Your task to perform on an android device: Open location settings Image 0: 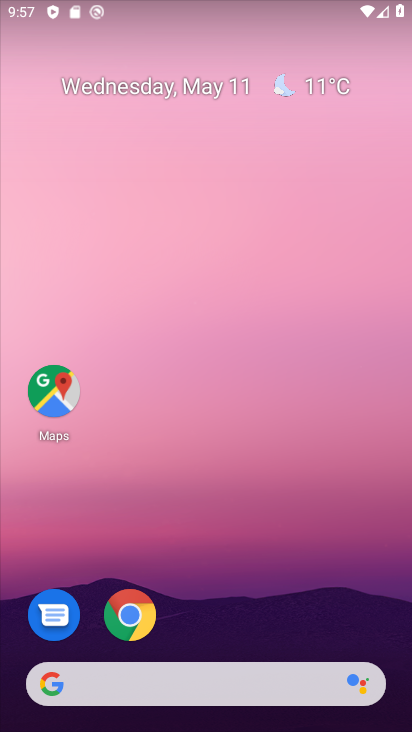
Step 0: drag from (298, 393) to (311, 142)
Your task to perform on an android device: Open location settings Image 1: 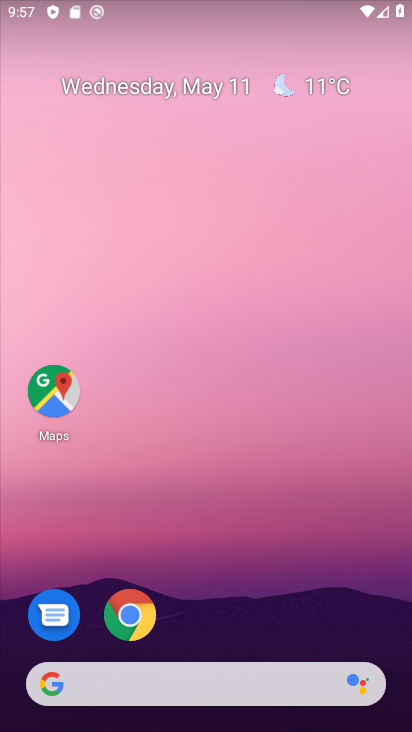
Step 1: drag from (251, 455) to (307, 0)
Your task to perform on an android device: Open location settings Image 2: 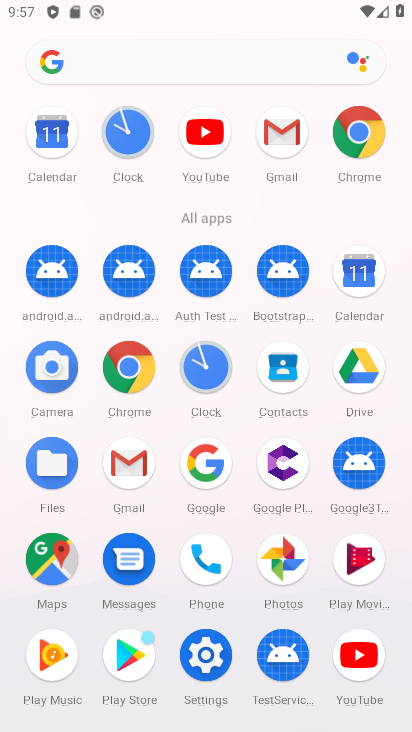
Step 2: click (212, 648)
Your task to perform on an android device: Open location settings Image 3: 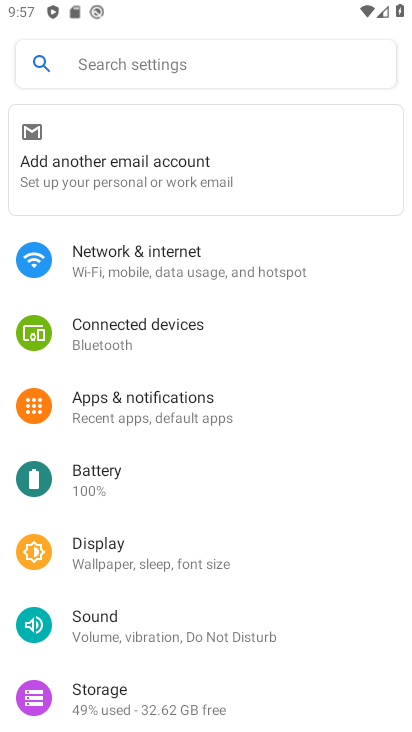
Step 3: drag from (133, 643) to (239, 249)
Your task to perform on an android device: Open location settings Image 4: 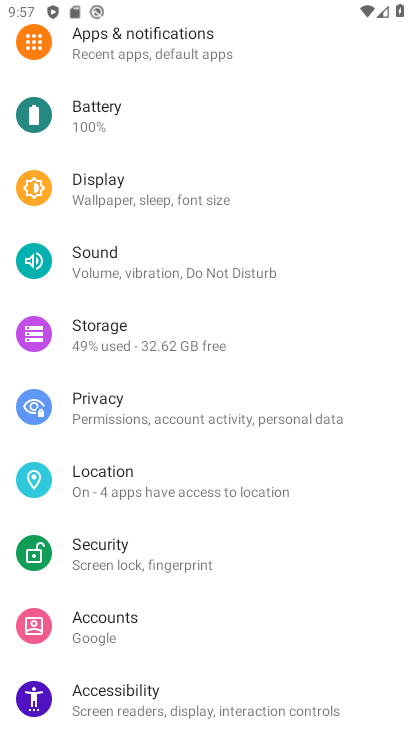
Step 4: click (145, 479)
Your task to perform on an android device: Open location settings Image 5: 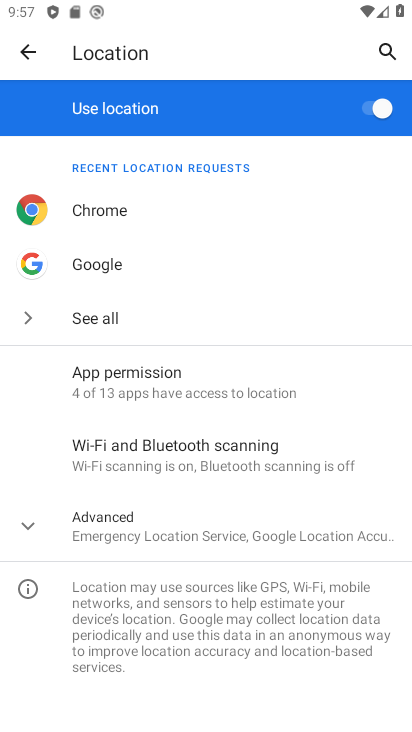
Step 5: task complete